Your task to perform on an android device: turn off javascript in the chrome app Image 0: 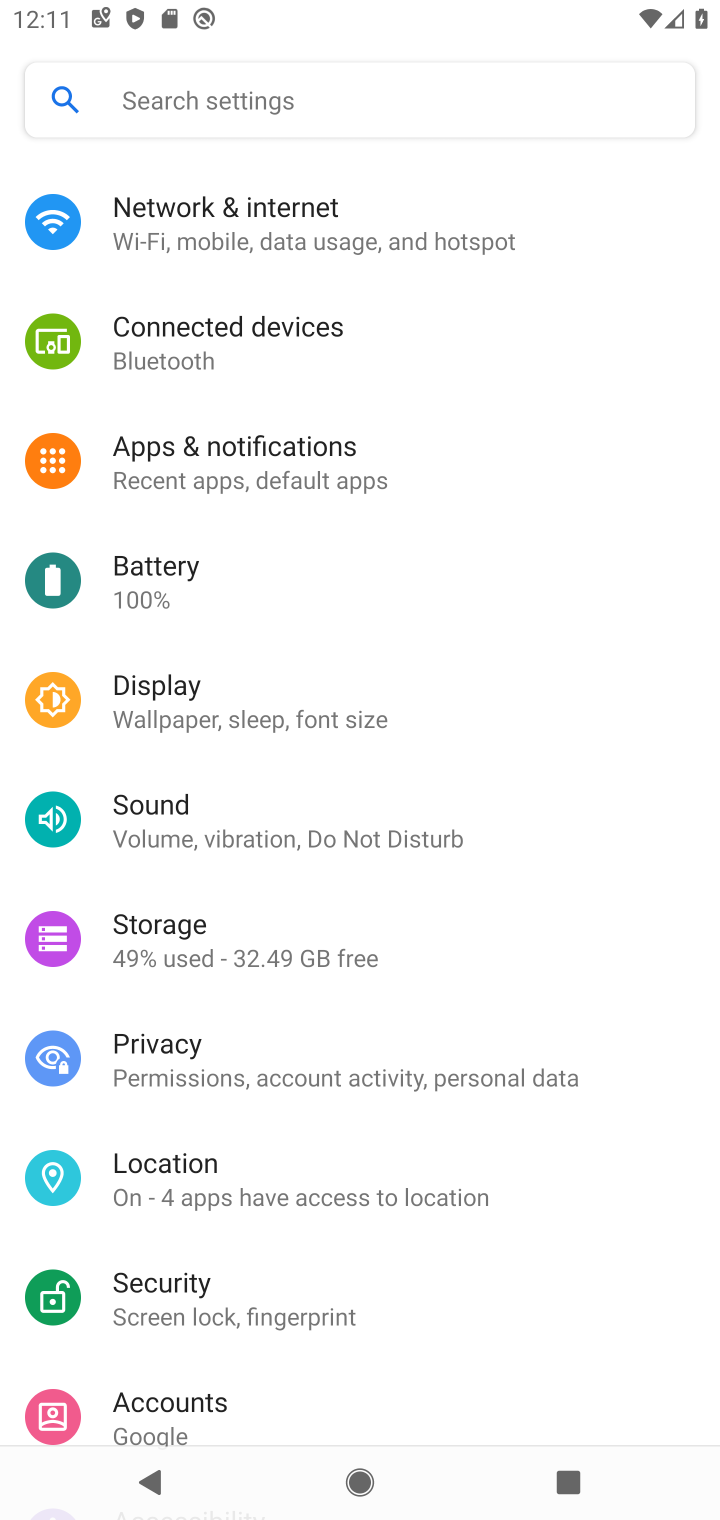
Step 0: drag from (388, 1111) to (487, 110)
Your task to perform on an android device: turn off javascript in the chrome app Image 1: 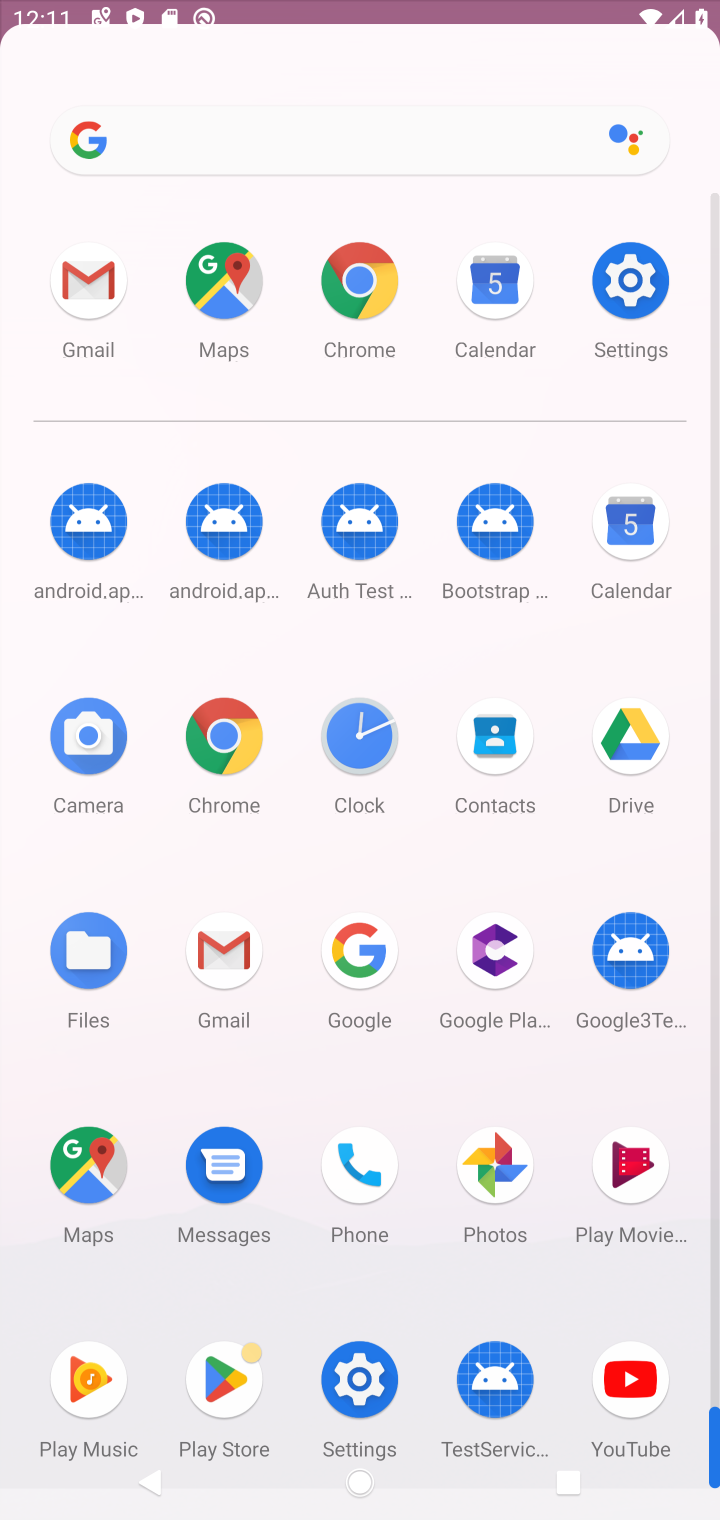
Step 1: drag from (357, 1008) to (423, 928)
Your task to perform on an android device: turn off javascript in the chrome app Image 2: 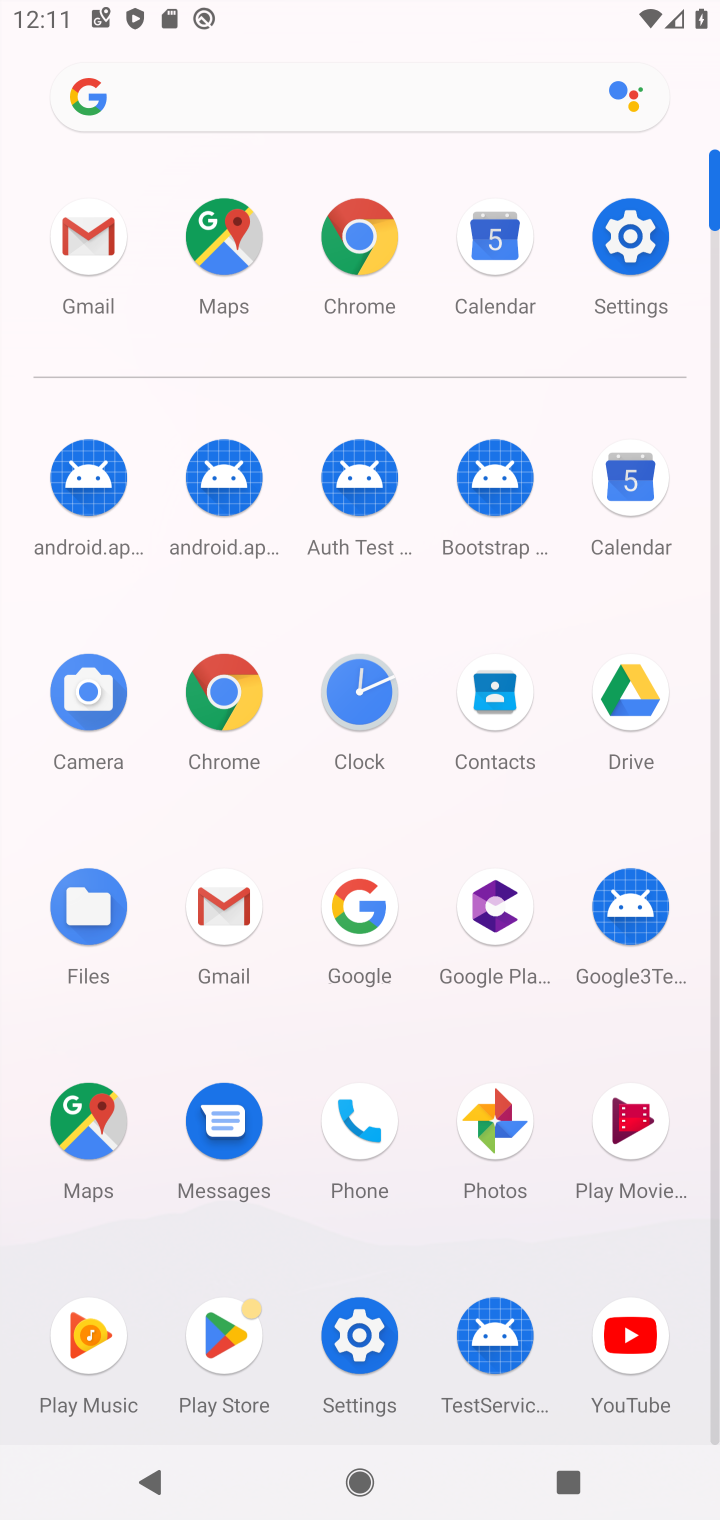
Step 2: click (246, 92)
Your task to perform on an android device: turn off javascript in the chrome app Image 3: 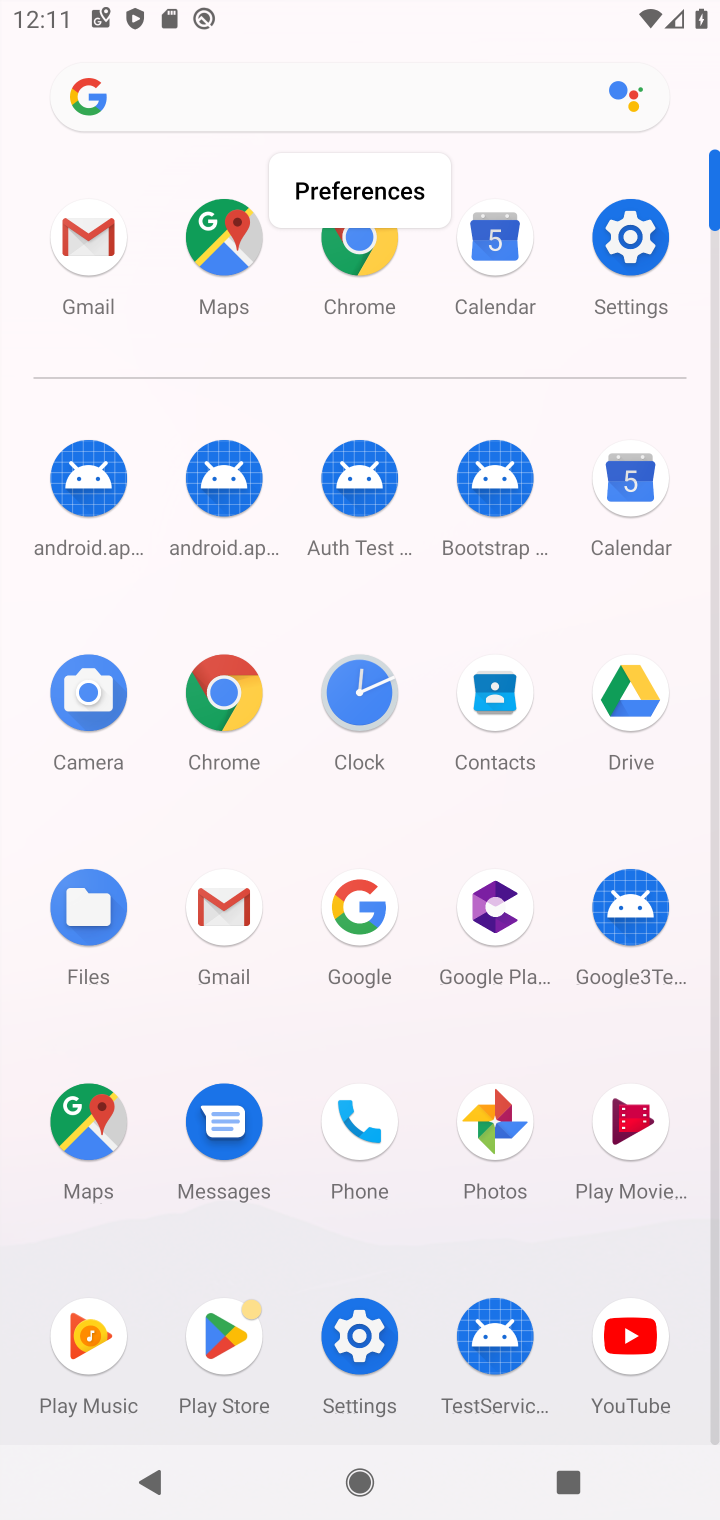
Step 3: type "recent news"
Your task to perform on an android device: turn off javascript in the chrome app Image 4: 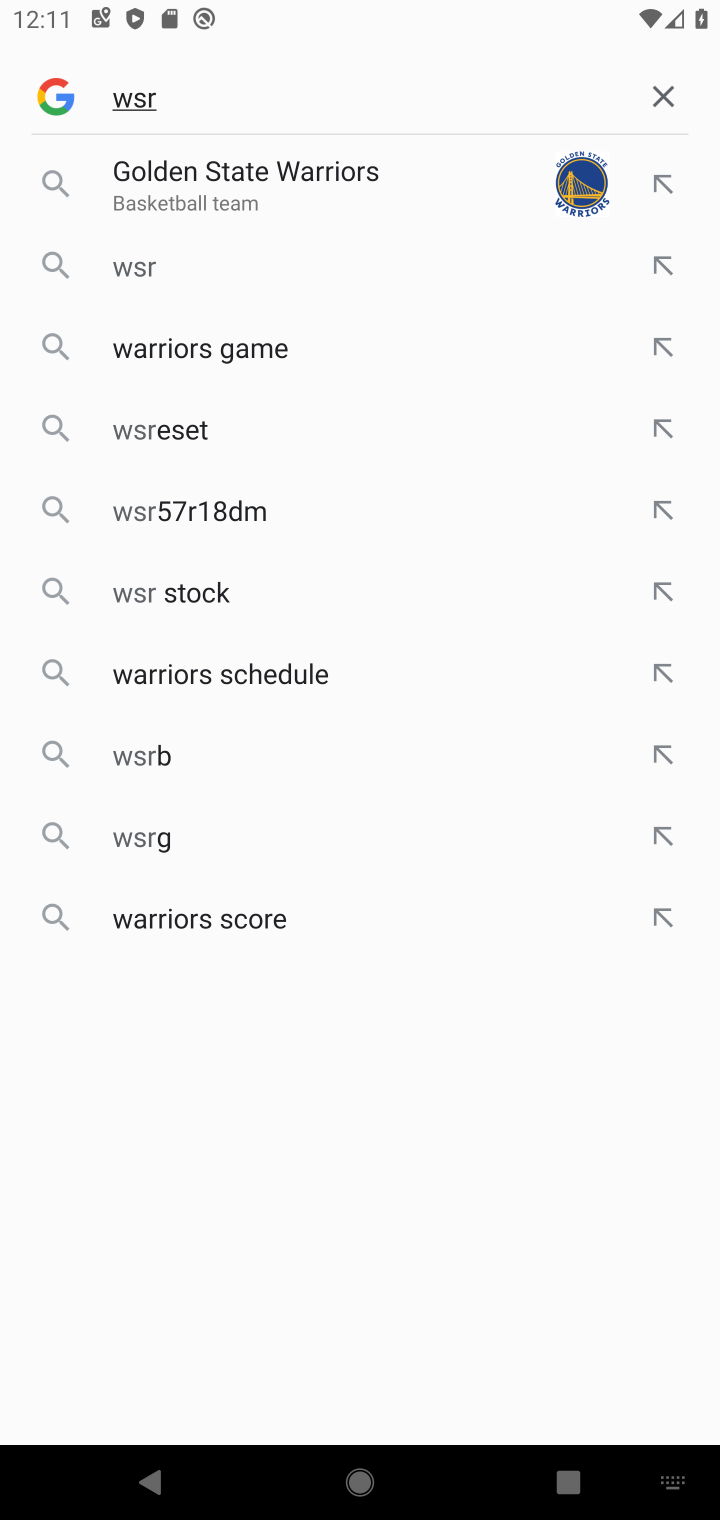
Step 4: press back button
Your task to perform on an android device: turn off javascript in the chrome app Image 5: 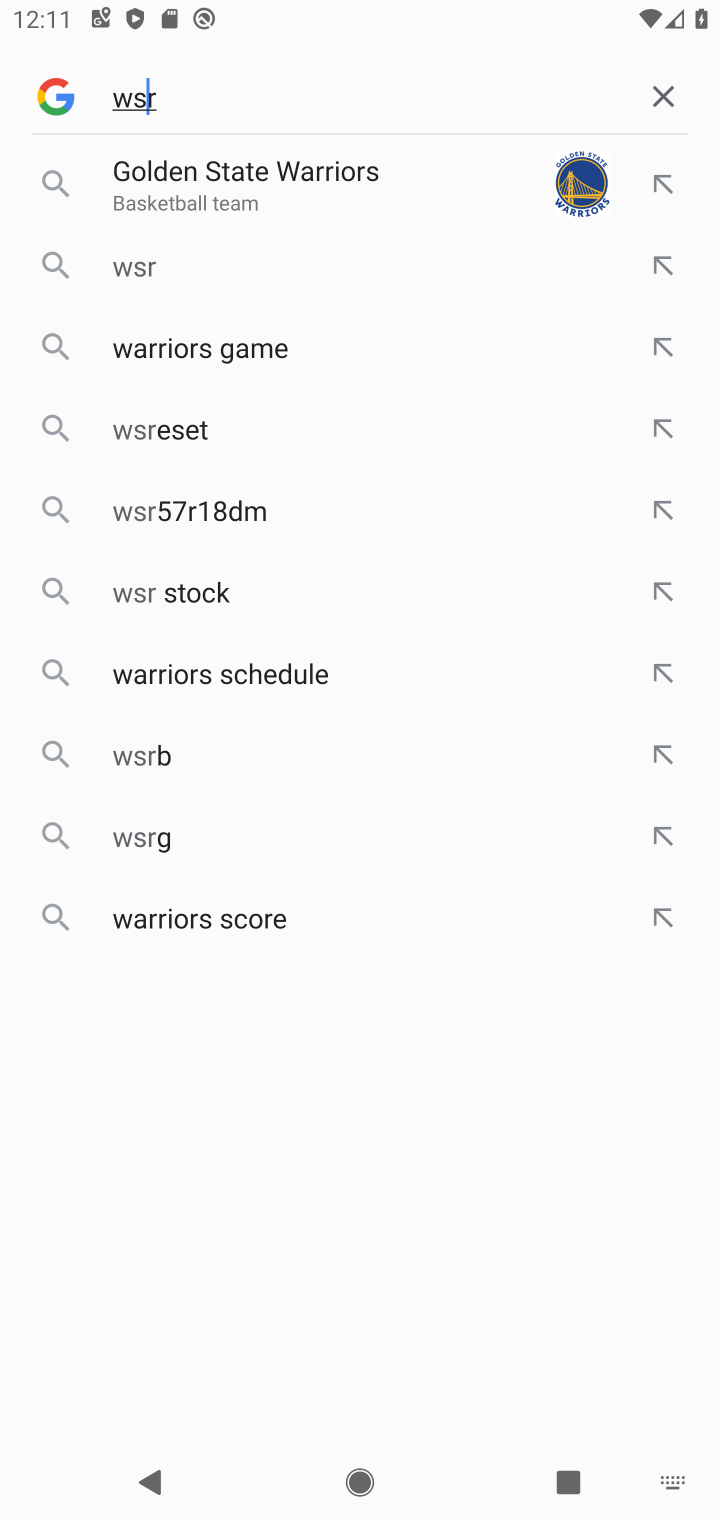
Step 5: press back button
Your task to perform on an android device: turn off javascript in the chrome app Image 6: 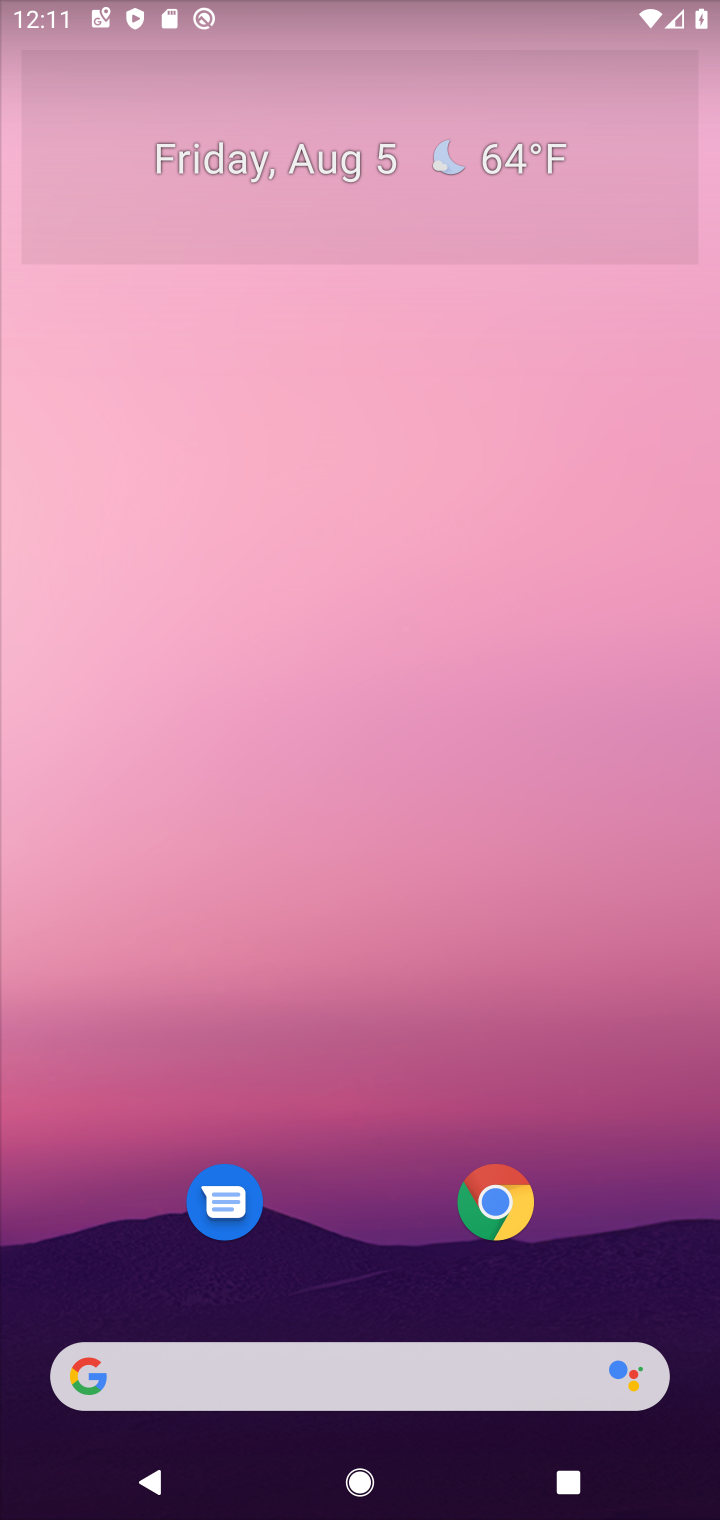
Step 6: press back button
Your task to perform on an android device: turn off javascript in the chrome app Image 7: 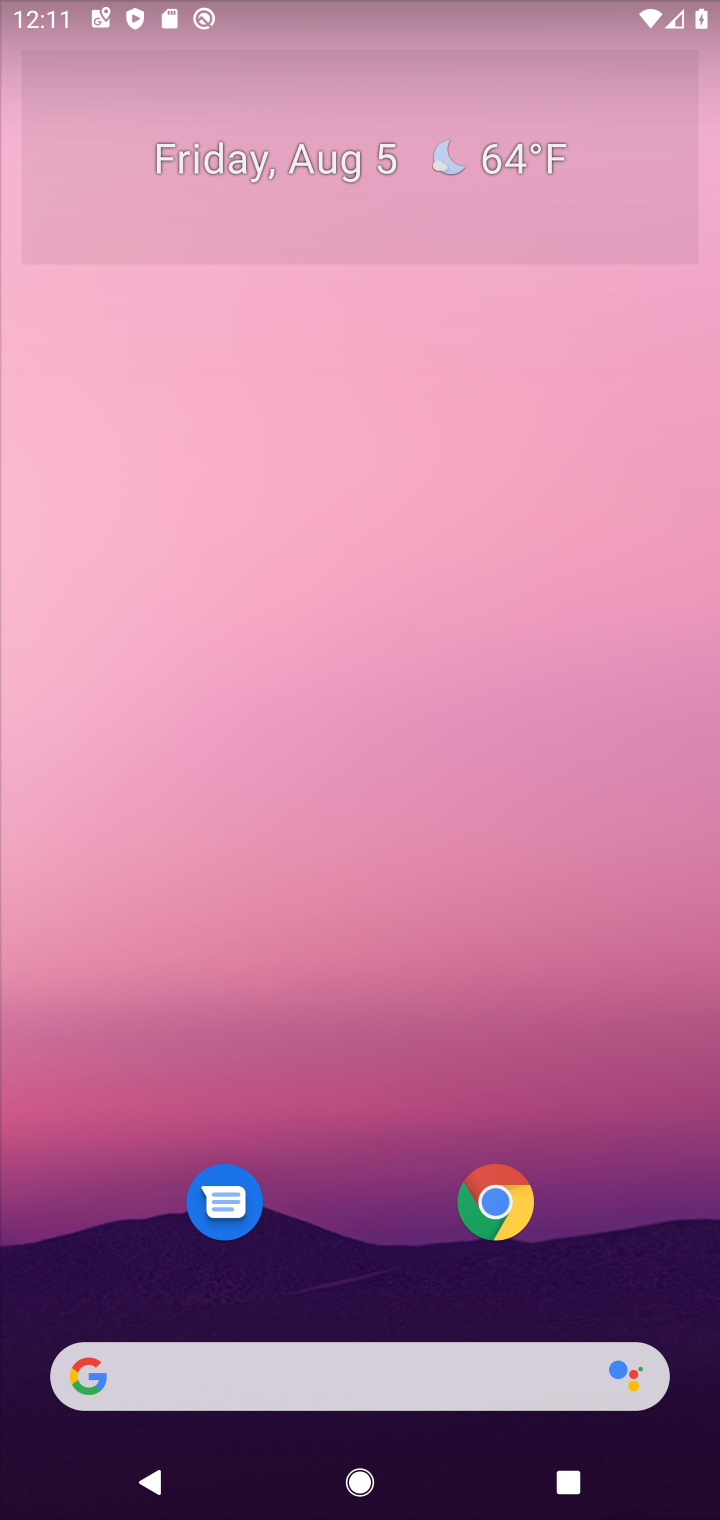
Step 7: press home button
Your task to perform on an android device: turn off javascript in the chrome app Image 8: 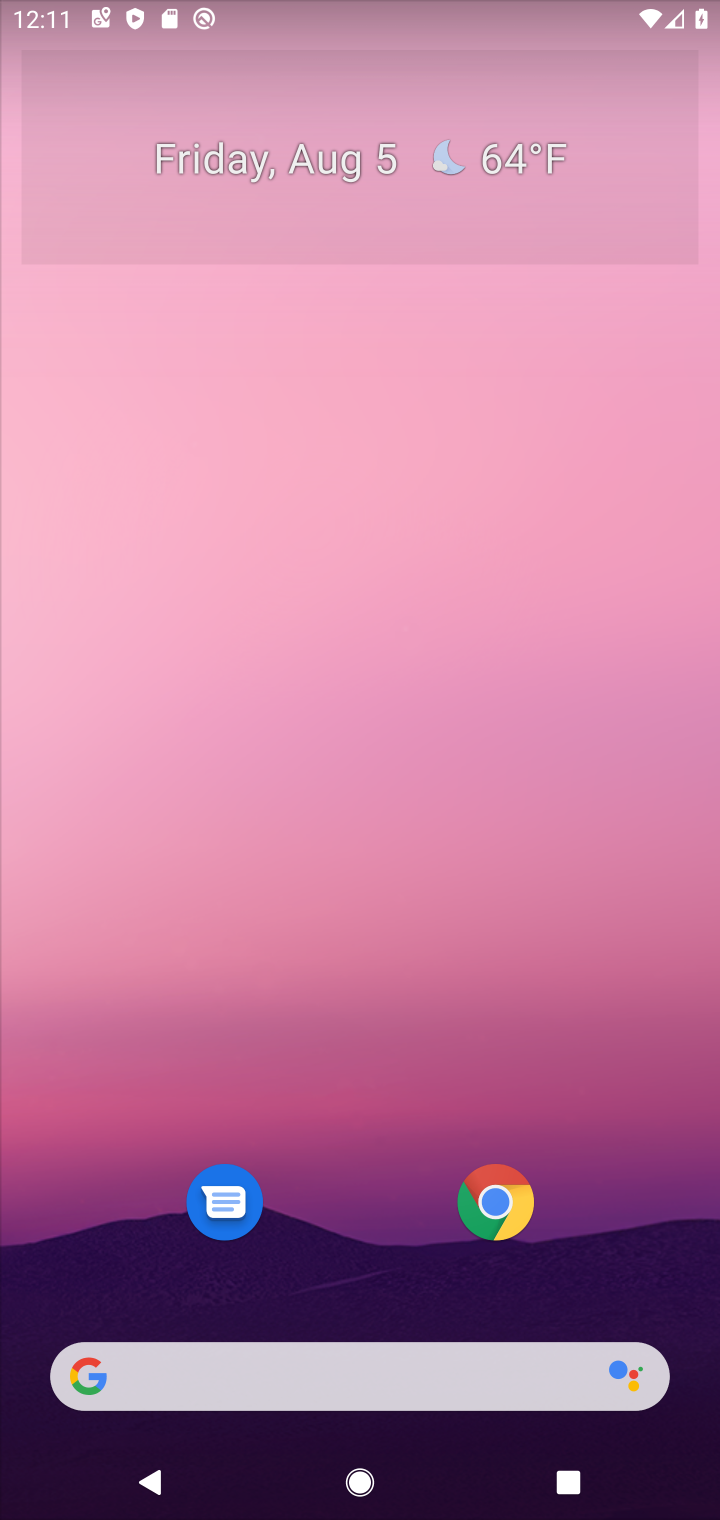
Step 8: click (493, 1199)
Your task to perform on an android device: turn off javascript in the chrome app Image 9: 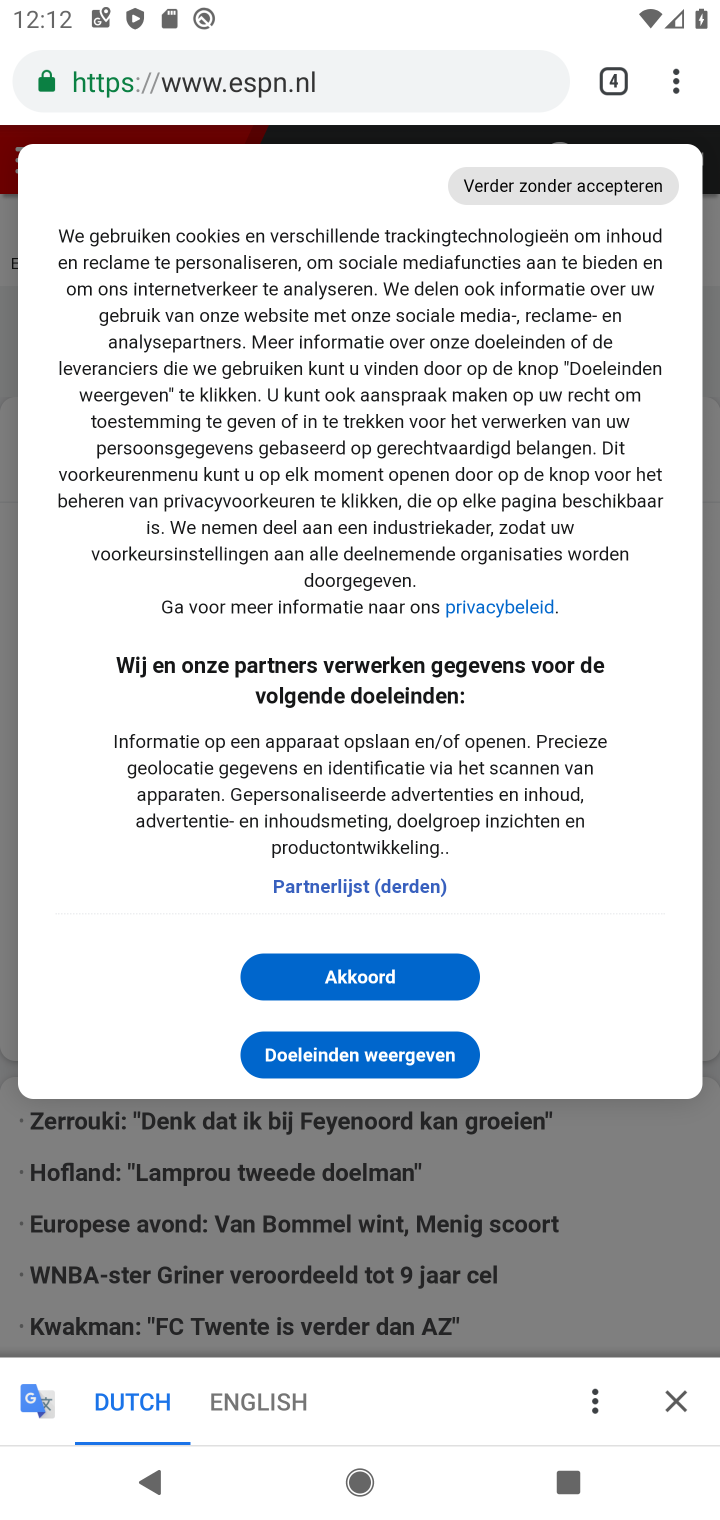
Step 9: drag from (679, 81) to (405, 991)
Your task to perform on an android device: turn off javascript in the chrome app Image 10: 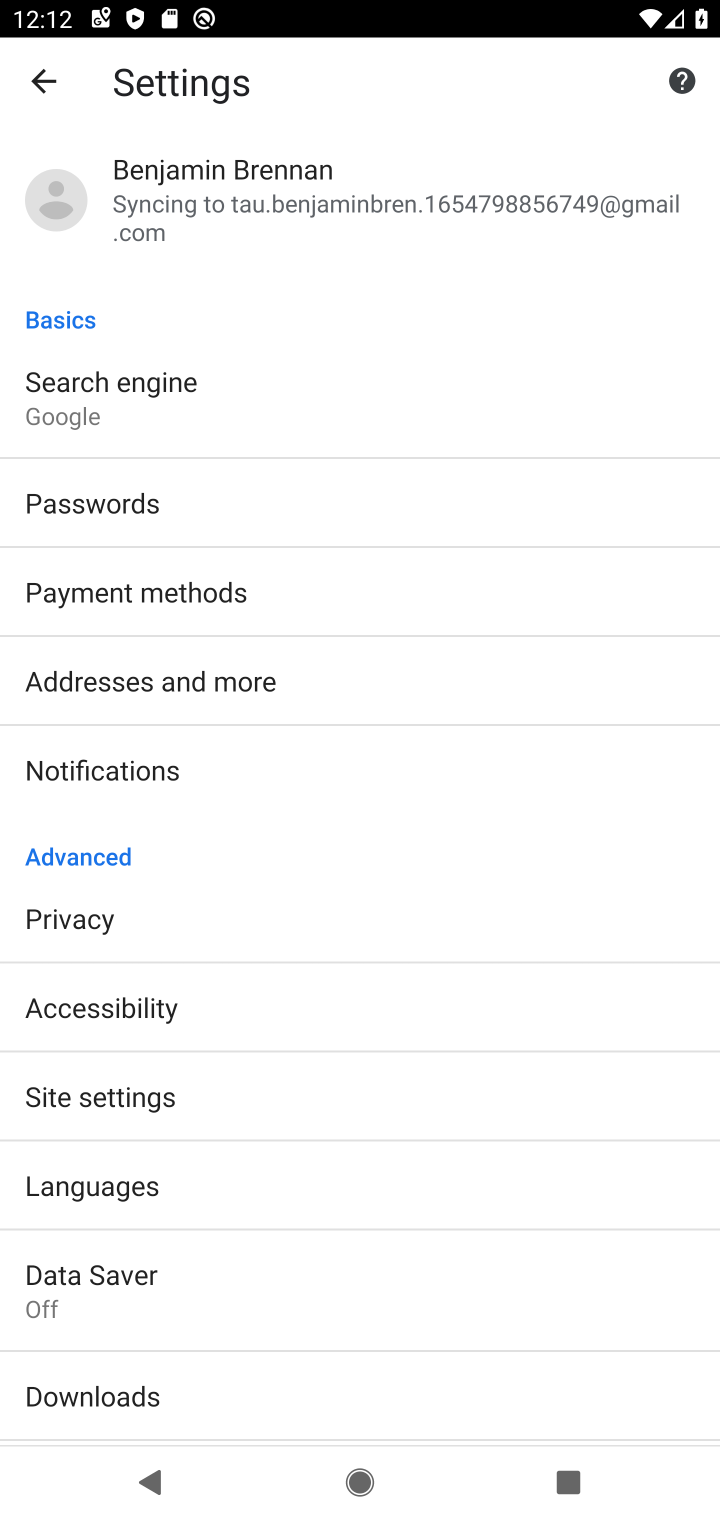
Step 10: click (165, 1106)
Your task to perform on an android device: turn off javascript in the chrome app Image 11: 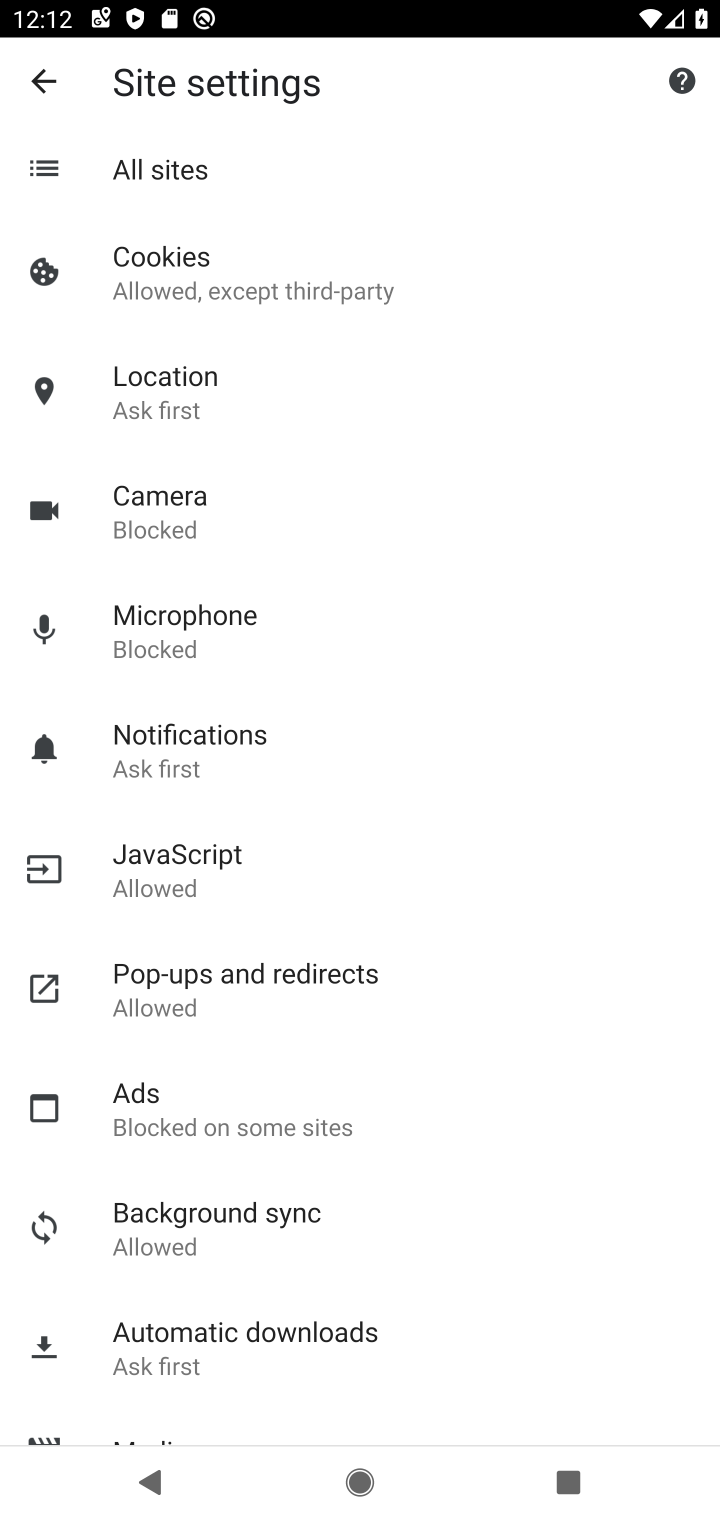
Step 11: click (222, 865)
Your task to perform on an android device: turn off javascript in the chrome app Image 12: 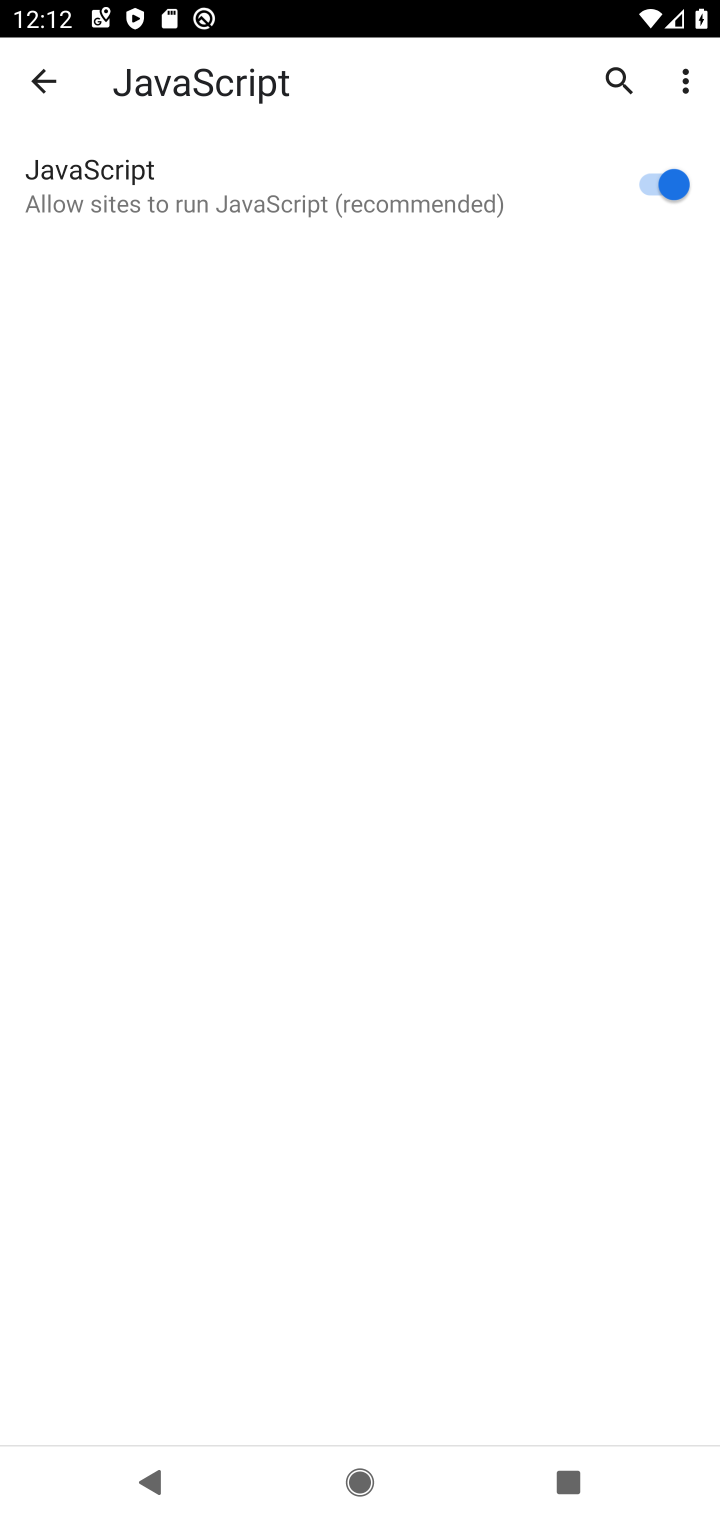
Step 12: click (677, 211)
Your task to perform on an android device: turn off javascript in the chrome app Image 13: 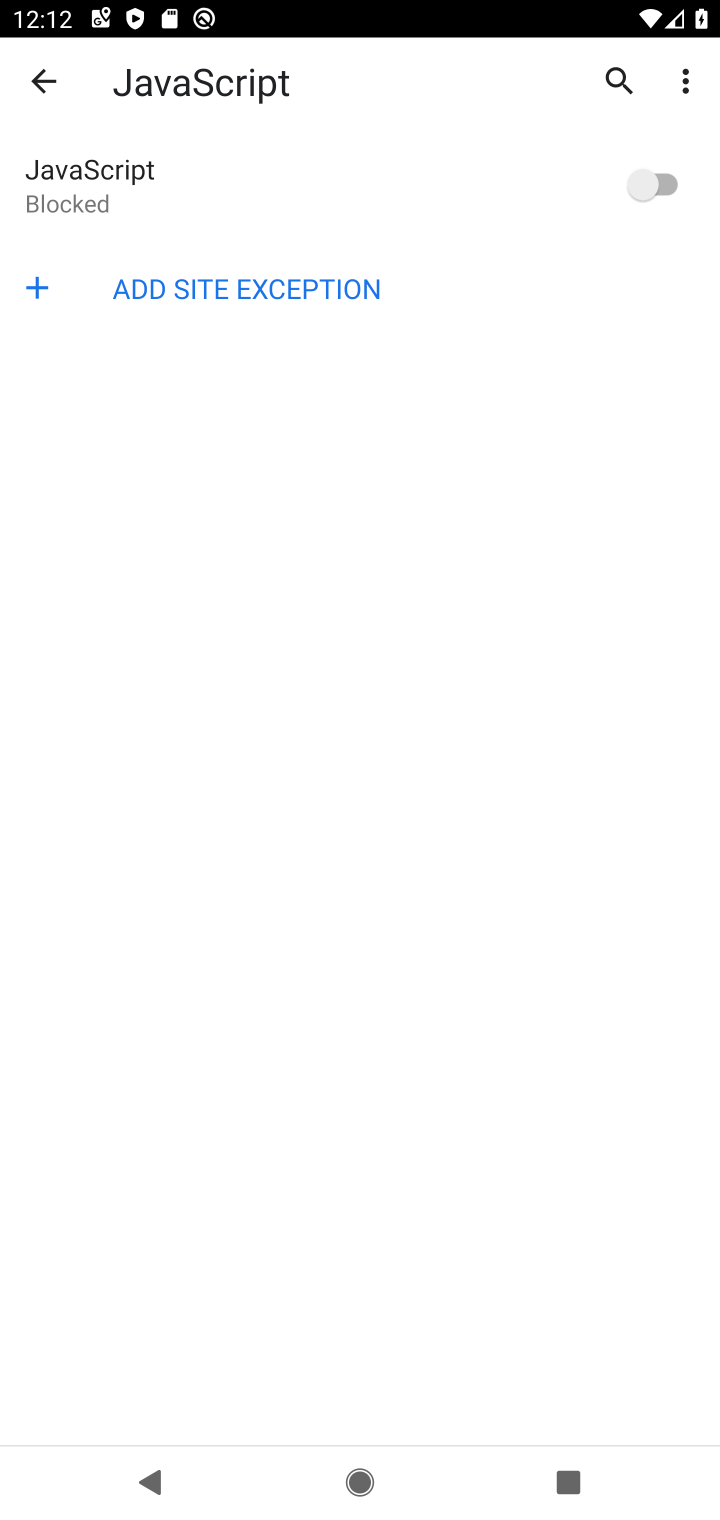
Step 13: task complete